Your task to perform on an android device: turn off location history Image 0: 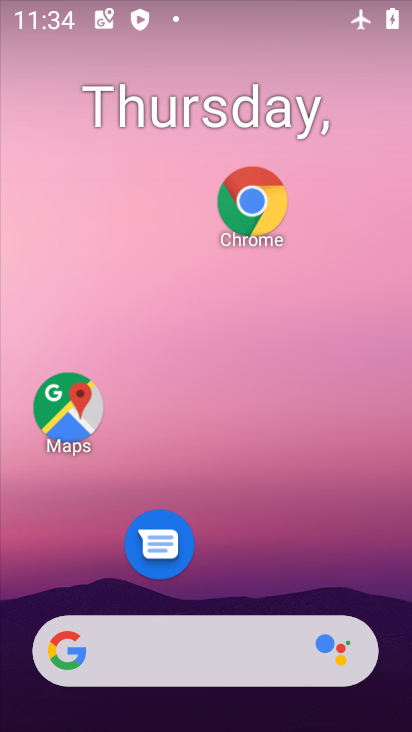
Step 0: click (232, 176)
Your task to perform on an android device: turn off location history Image 1: 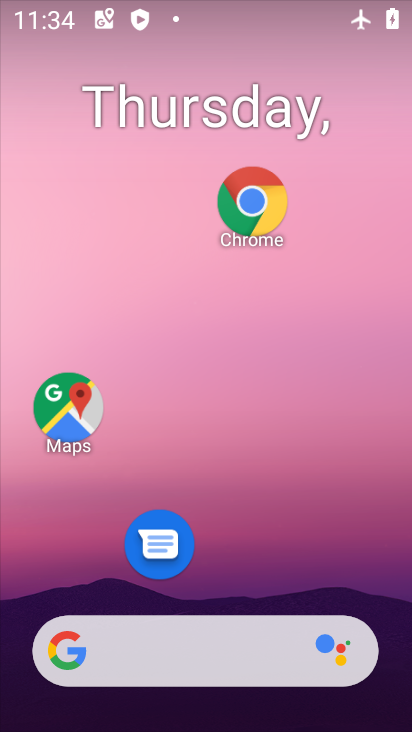
Step 1: click (233, 162)
Your task to perform on an android device: turn off location history Image 2: 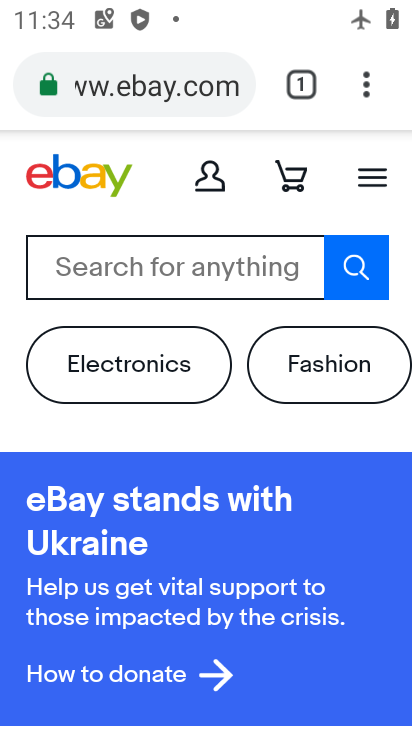
Step 2: press home button
Your task to perform on an android device: turn off location history Image 3: 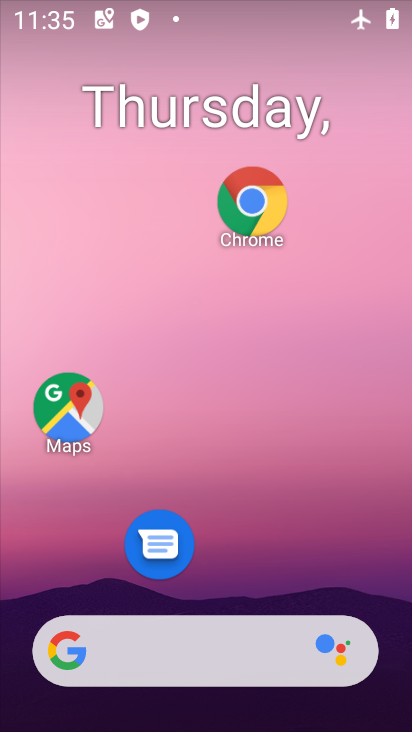
Step 3: drag from (231, 588) to (249, 50)
Your task to perform on an android device: turn off location history Image 4: 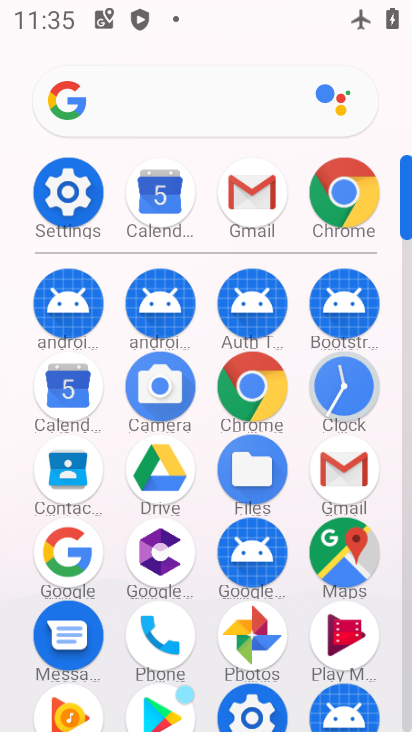
Step 4: click (67, 194)
Your task to perform on an android device: turn off location history Image 5: 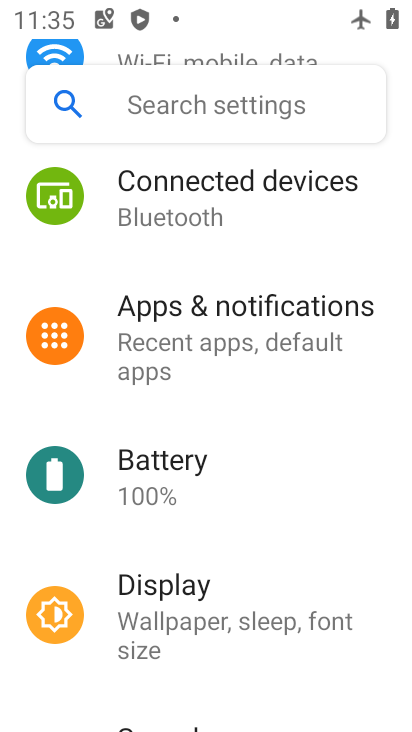
Step 5: drag from (222, 667) to (205, 204)
Your task to perform on an android device: turn off location history Image 6: 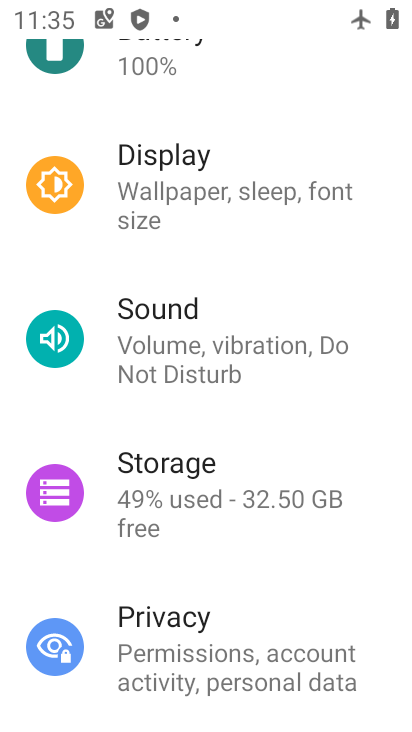
Step 6: drag from (210, 649) to (210, 182)
Your task to perform on an android device: turn off location history Image 7: 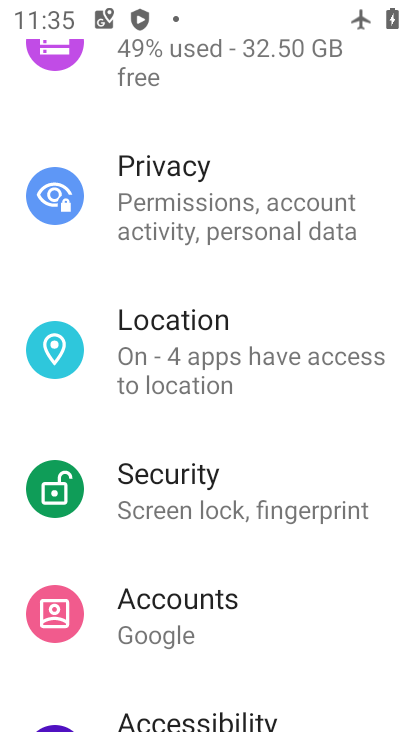
Step 7: click (237, 328)
Your task to perform on an android device: turn off location history Image 8: 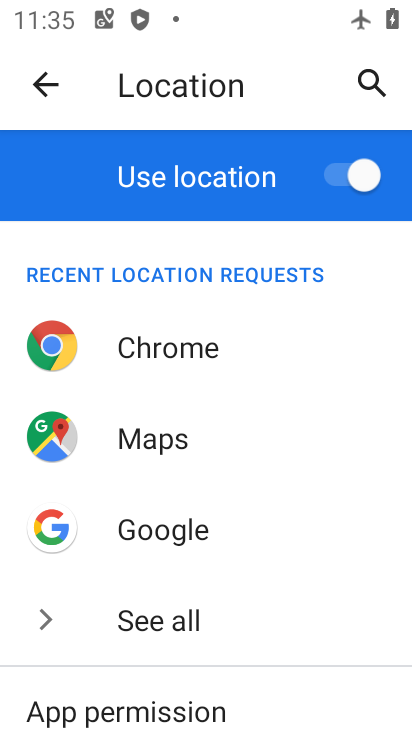
Step 8: click (45, 88)
Your task to perform on an android device: turn off location history Image 9: 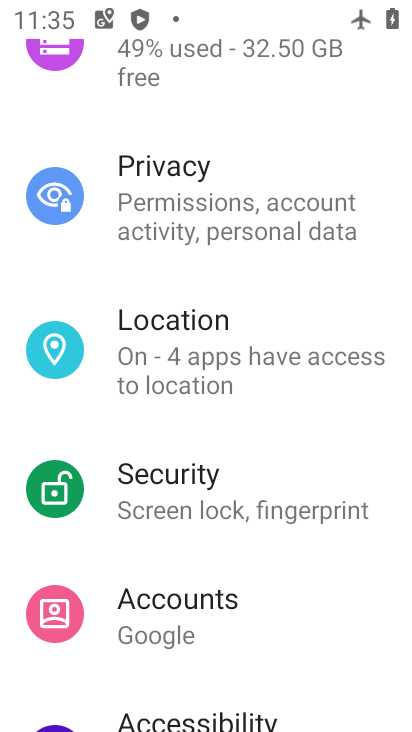
Step 9: click (187, 340)
Your task to perform on an android device: turn off location history Image 10: 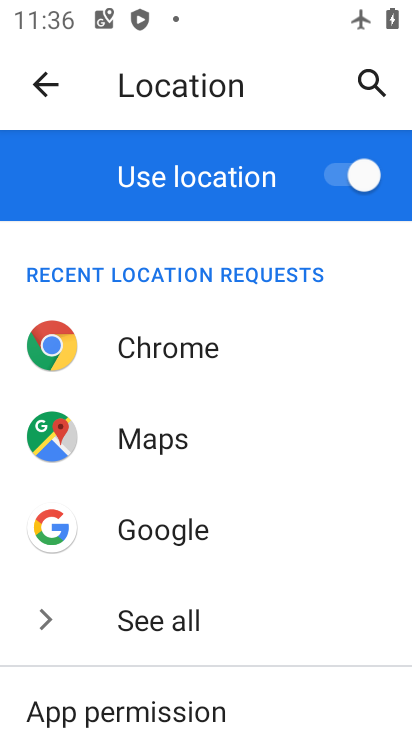
Step 10: drag from (209, 678) to (206, 172)
Your task to perform on an android device: turn off location history Image 11: 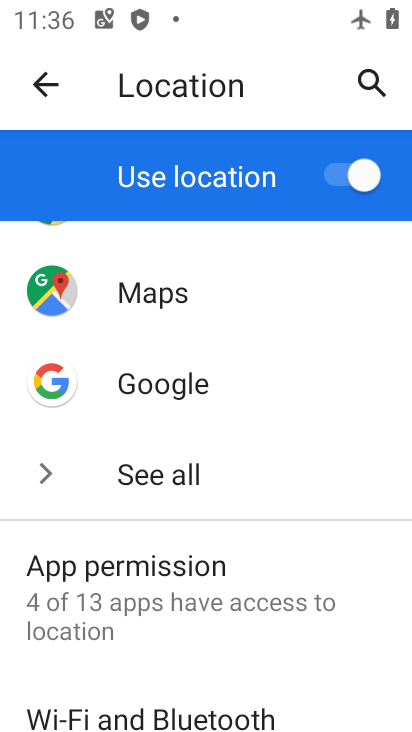
Step 11: drag from (200, 657) to (200, 203)
Your task to perform on an android device: turn off location history Image 12: 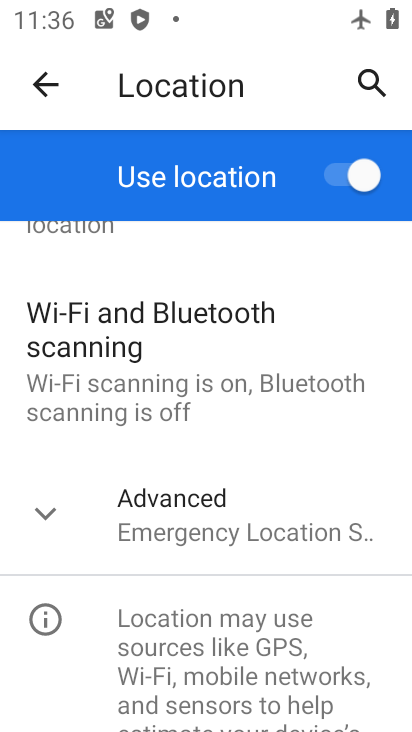
Step 12: click (39, 506)
Your task to perform on an android device: turn off location history Image 13: 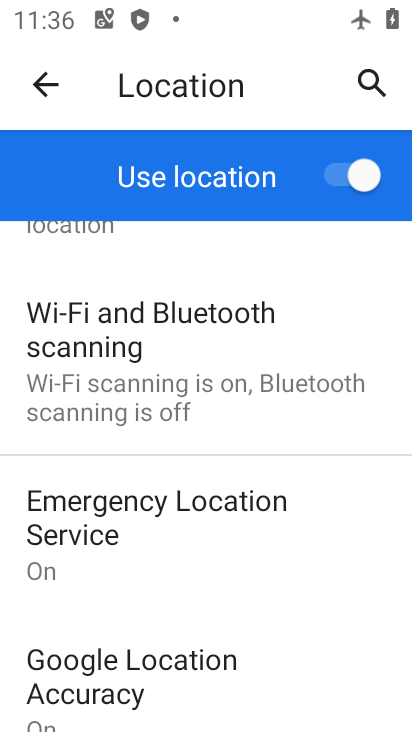
Step 13: drag from (208, 647) to (200, 286)
Your task to perform on an android device: turn off location history Image 14: 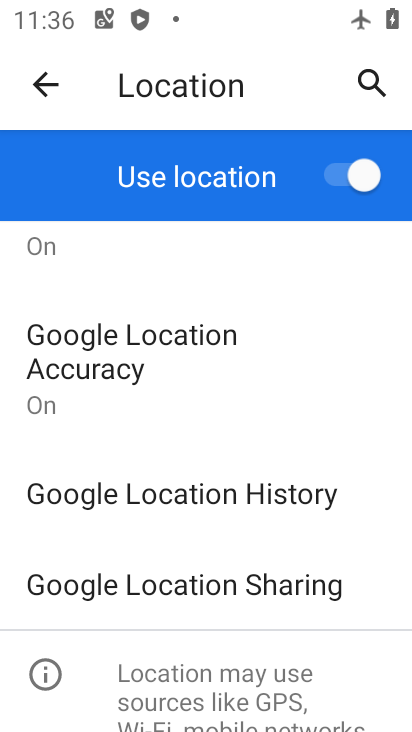
Step 14: click (349, 500)
Your task to perform on an android device: turn off location history Image 15: 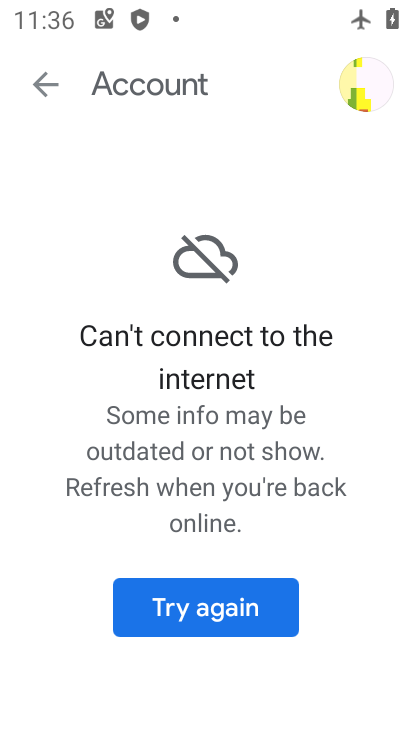
Step 15: task complete